Your task to perform on an android device: Find coffee shops on Maps Image 0: 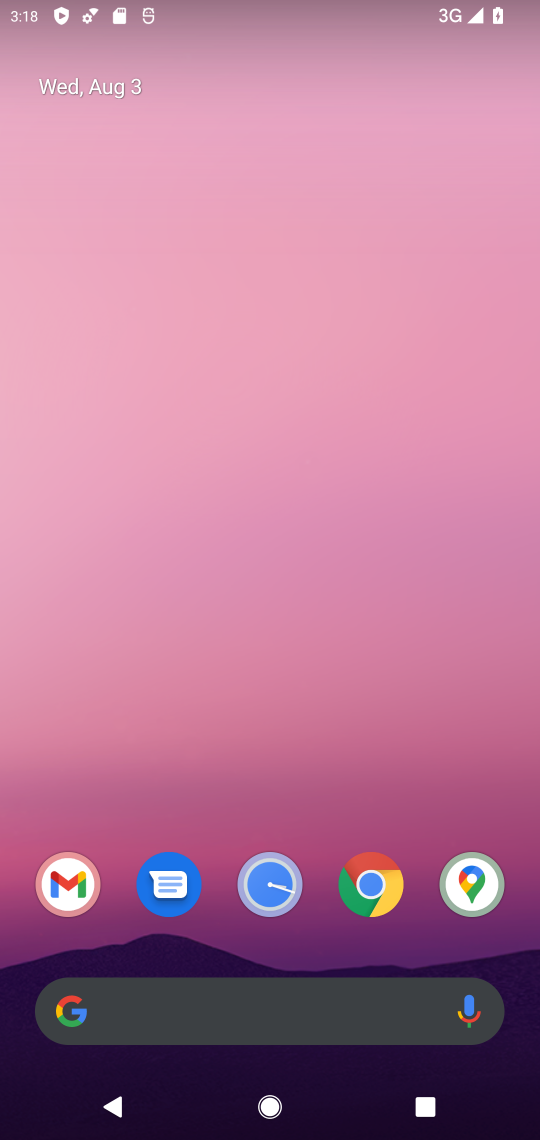
Step 0: click (466, 892)
Your task to perform on an android device: Find coffee shops on Maps Image 1: 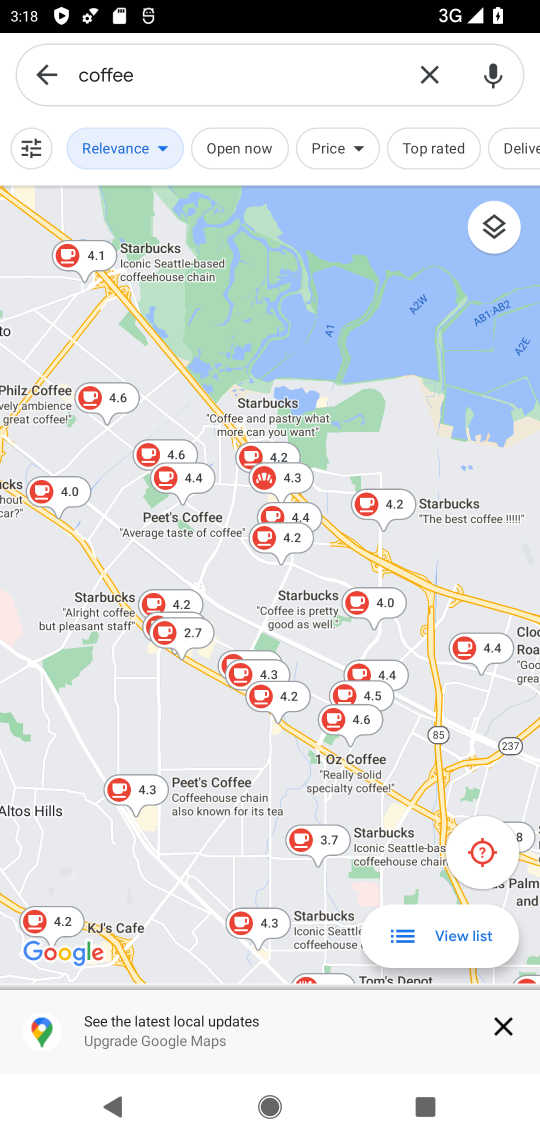
Step 1: task complete